Your task to perform on an android device: Go to Yahoo.com Image 0: 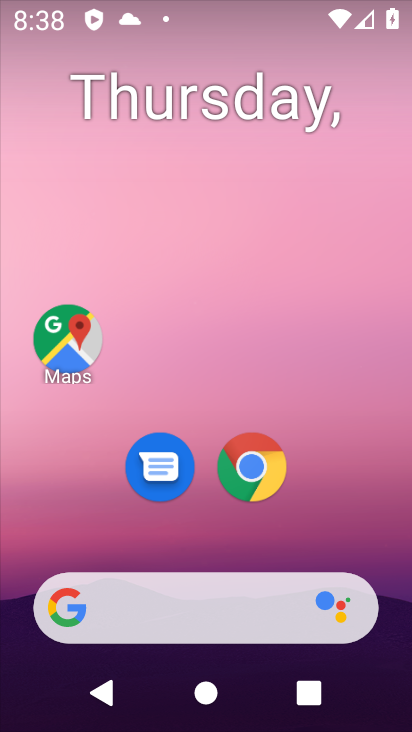
Step 0: click (263, 469)
Your task to perform on an android device: Go to Yahoo.com Image 1: 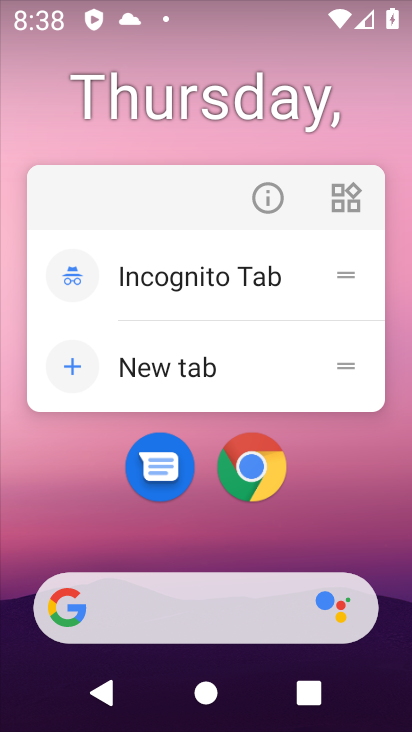
Step 1: click (261, 467)
Your task to perform on an android device: Go to Yahoo.com Image 2: 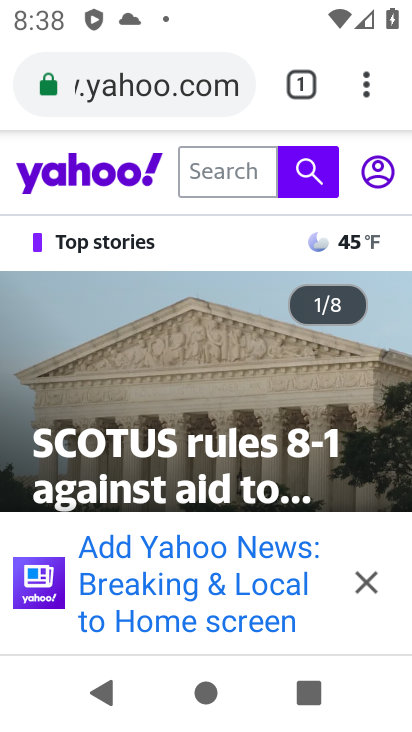
Step 2: click (141, 77)
Your task to perform on an android device: Go to Yahoo.com Image 3: 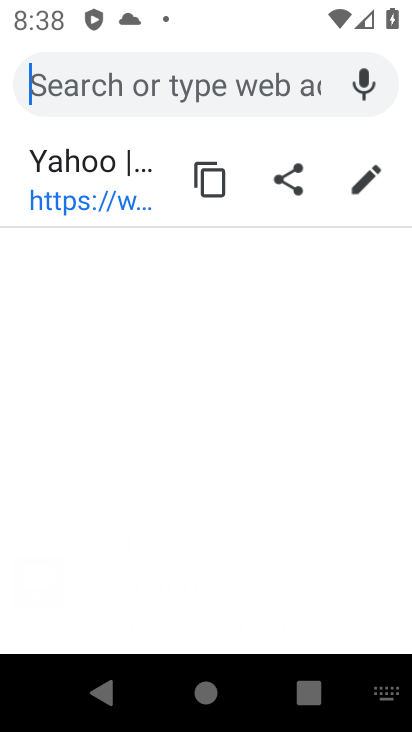
Step 3: click (76, 174)
Your task to perform on an android device: Go to Yahoo.com Image 4: 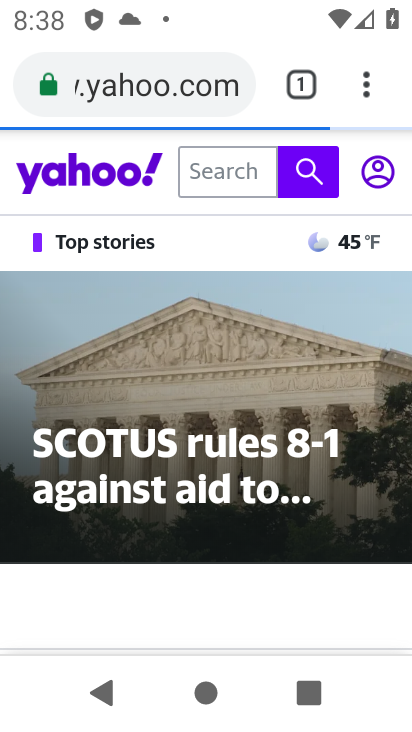
Step 4: task complete